Your task to perform on an android device: see sites visited before in the chrome app Image 0: 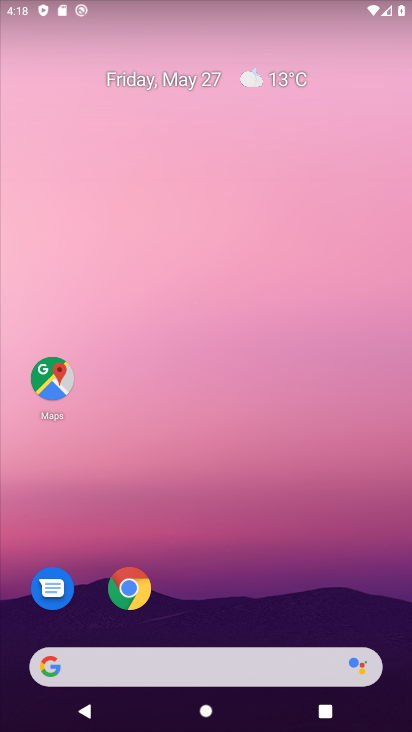
Step 0: click (129, 590)
Your task to perform on an android device: see sites visited before in the chrome app Image 1: 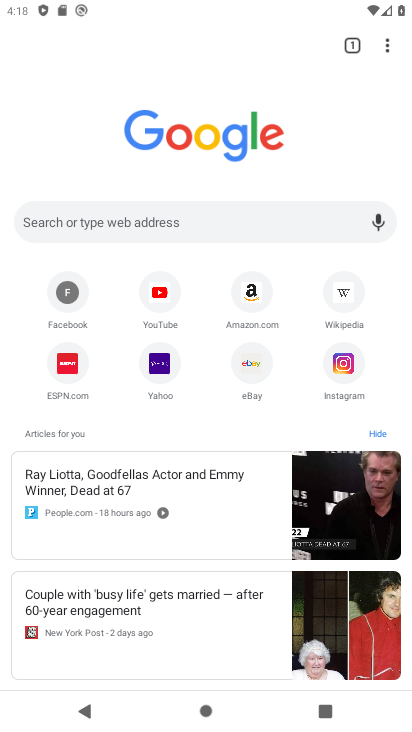
Step 1: task complete